Your task to perform on an android device: Do I have any events this weekend? Image 0: 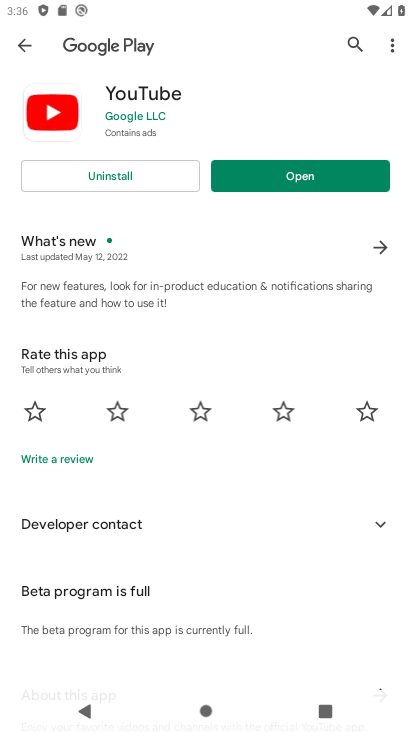
Step 0: press home button
Your task to perform on an android device: Do I have any events this weekend? Image 1: 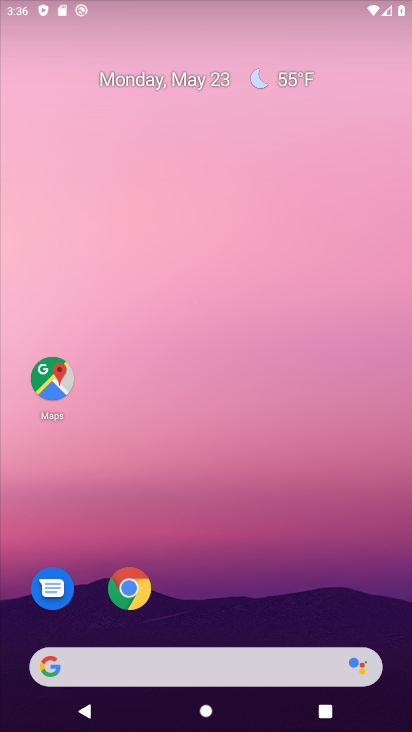
Step 1: drag from (222, 581) to (227, 99)
Your task to perform on an android device: Do I have any events this weekend? Image 2: 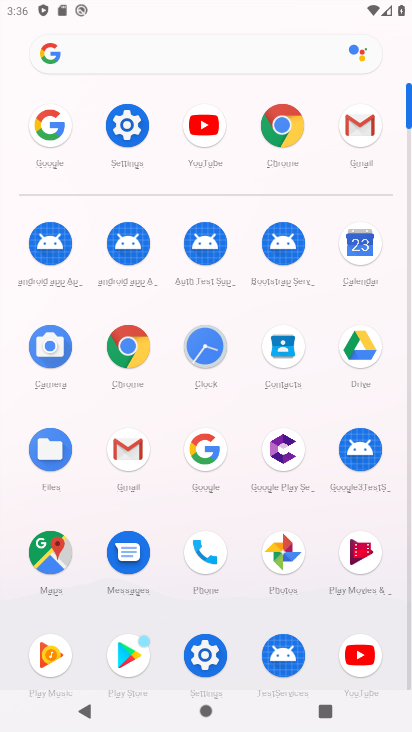
Step 2: click (361, 241)
Your task to perform on an android device: Do I have any events this weekend? Image 3: 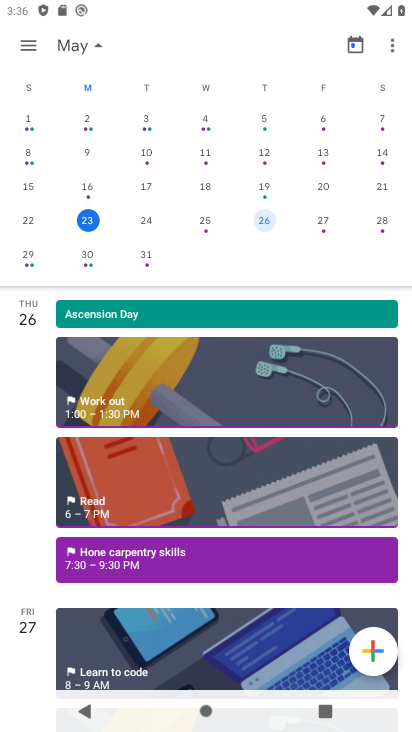
Step 3: click (204, 220)
Your task to perform on an android device: Do I have any events this weekend? Image 4: 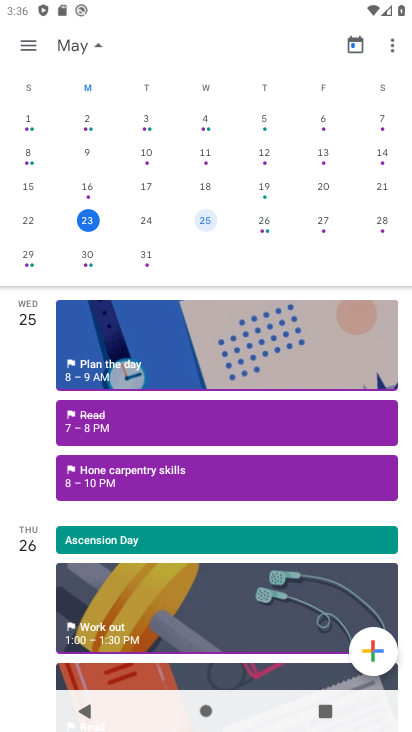
Step 4: task complete